Your task to perform on an android device: Add logitech g pro to the cart on amazon Image 0: 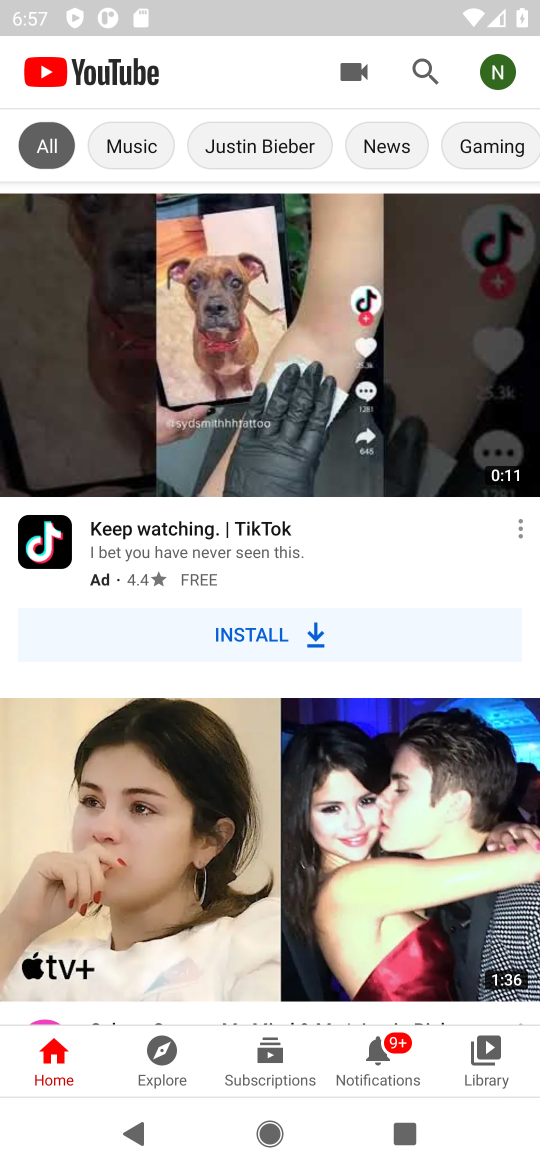
Step 0: press home button
Your task to perform on an android device: Add logitech g pro to the cart on amazon Image 1: 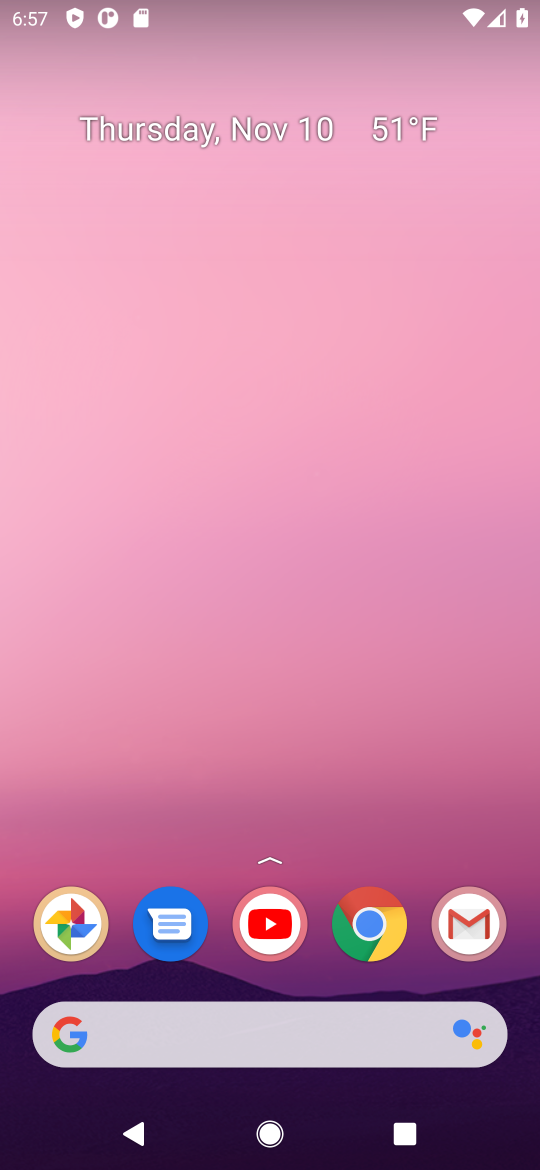
Step 1: click (381, 950)
Your task to perform on an android device: Add logitech g pro to the cart on amazon Image 2: 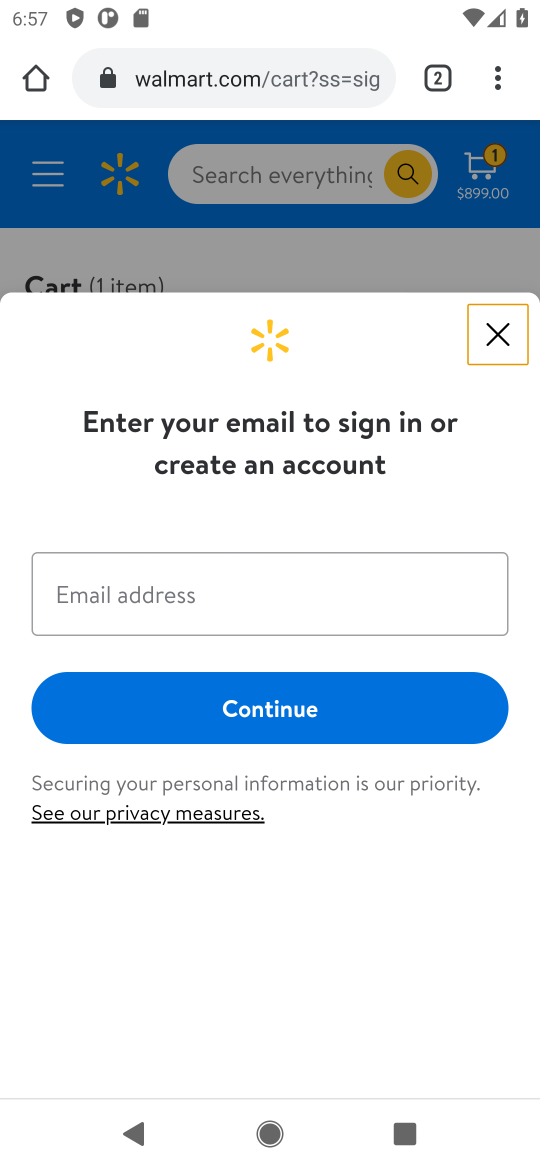
Step 2: click (221, 78)
Your task to perform on an android device: Add logitech g pro to the cart on amazon Image 3: 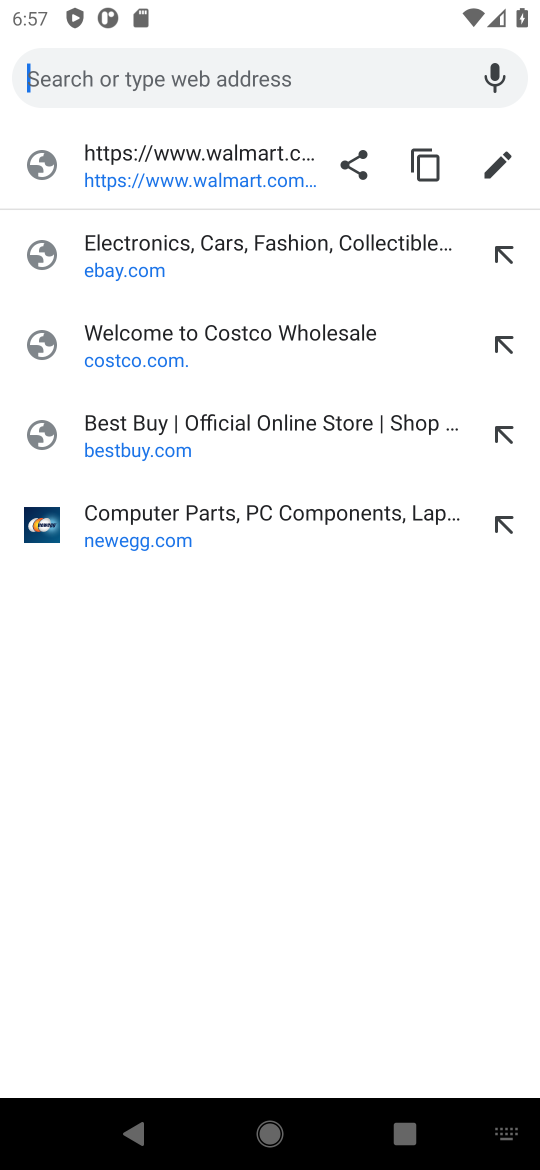
Step 3: type "amazon.com"
Your task to perform on an android device: Add logitech g pro to the cart on amazon Image 4: 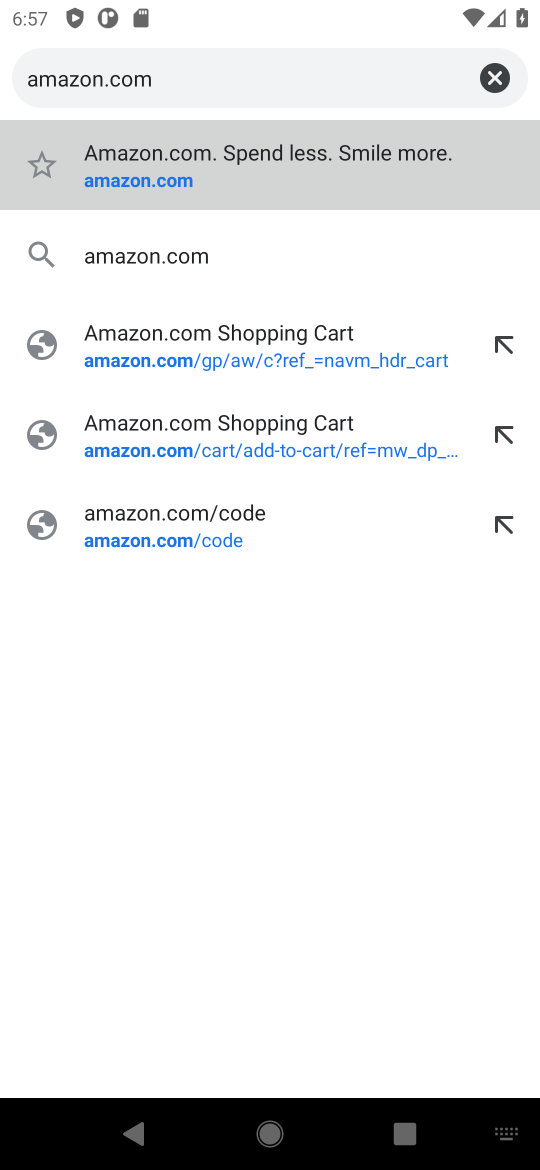
Step 4: click (132, 352)
Your task to perform on an android device: Add logitech g pro to the cart on amazon Image 5: 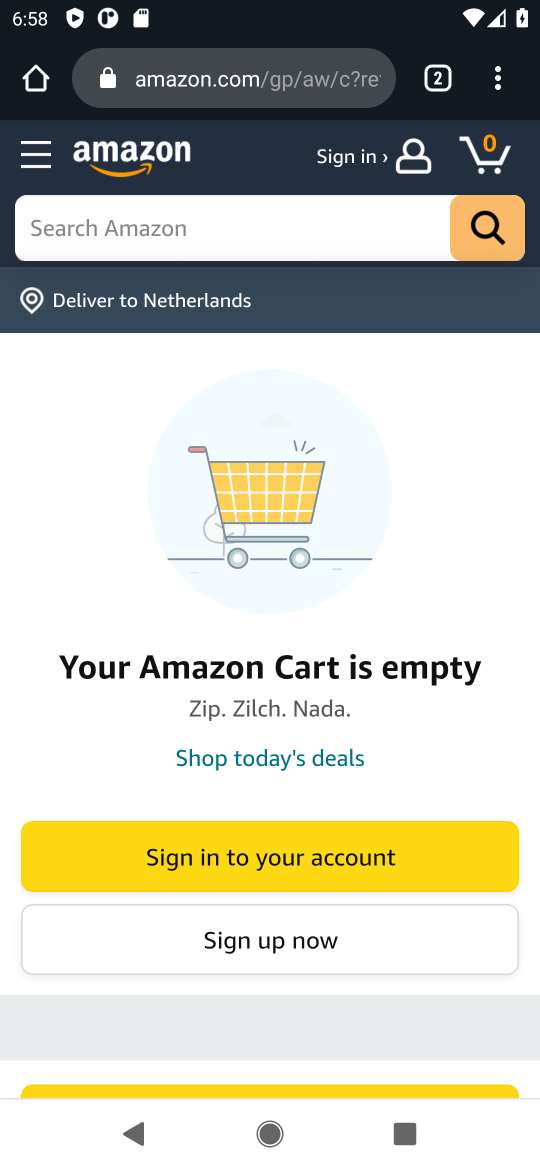
Step 5: click (163, 242)
Your task to perform on an android device: Add logitech g pro to the cart on amazon Image 6: 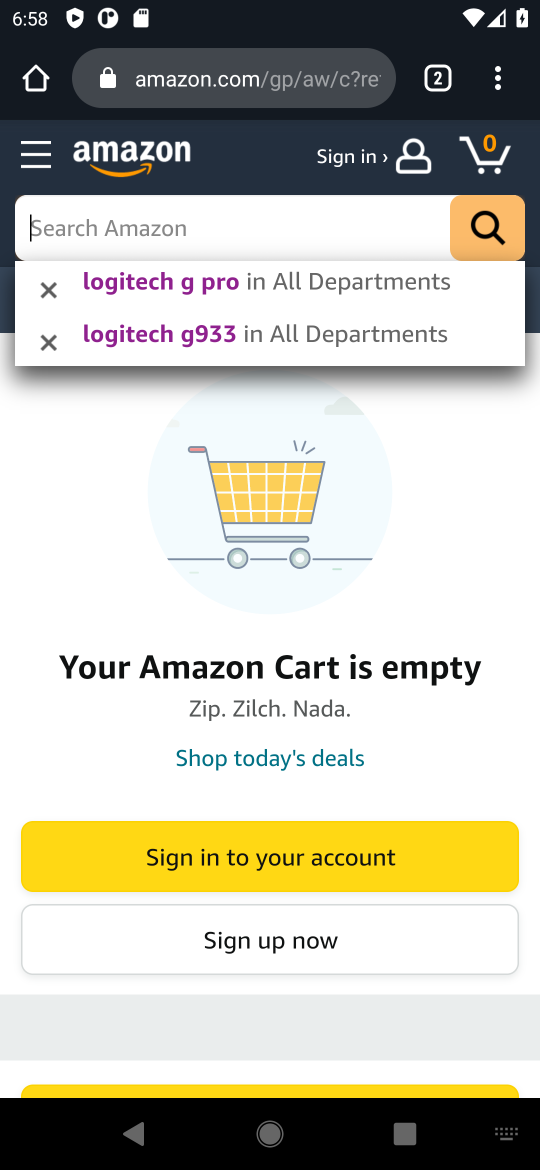
Step 6: type "logitech g pro"
Your task to perform on an android device: Add logitech g pro to the cart on amazon Image 7: 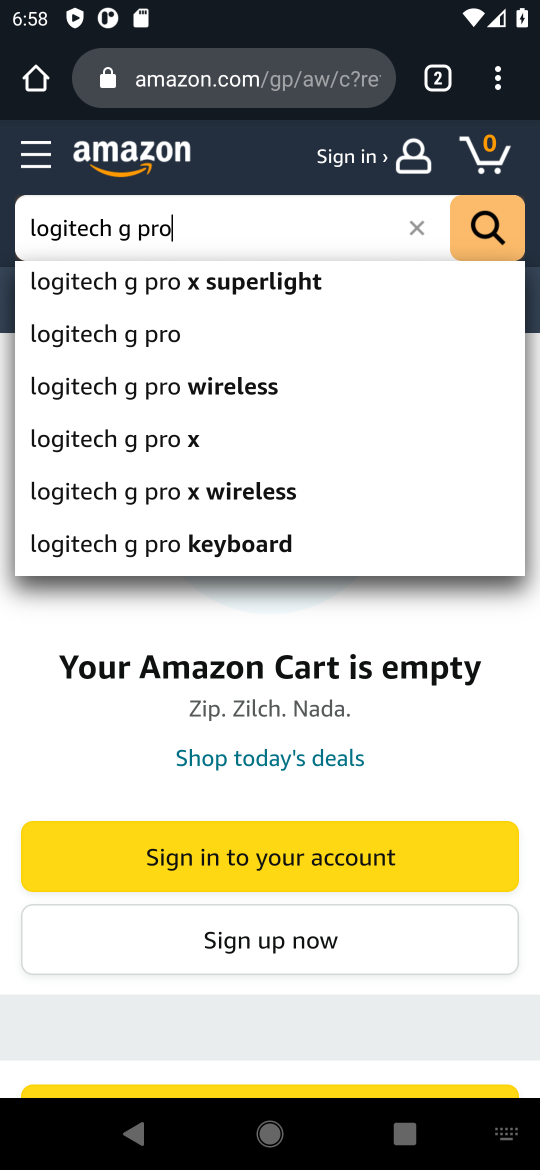
Step 7: click (102, 345)
Your task to perform on an android device: Add logitech g pro to the cart on amazon Image 8: 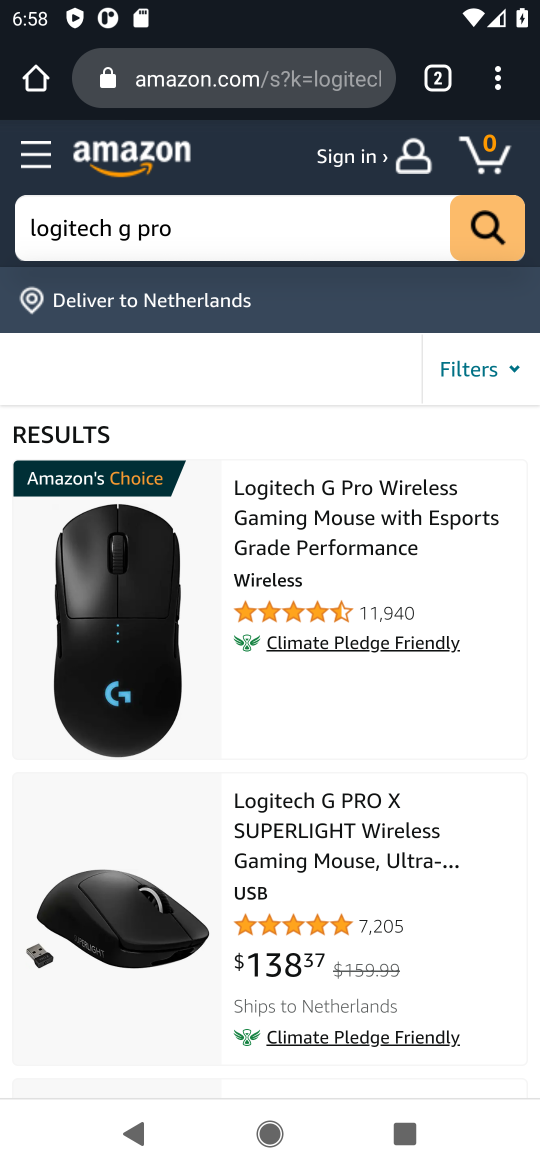
Step 8: click (143, 673)
Your task to perform on an android device: Add logitech g pro to the cart on amazon Image 9: 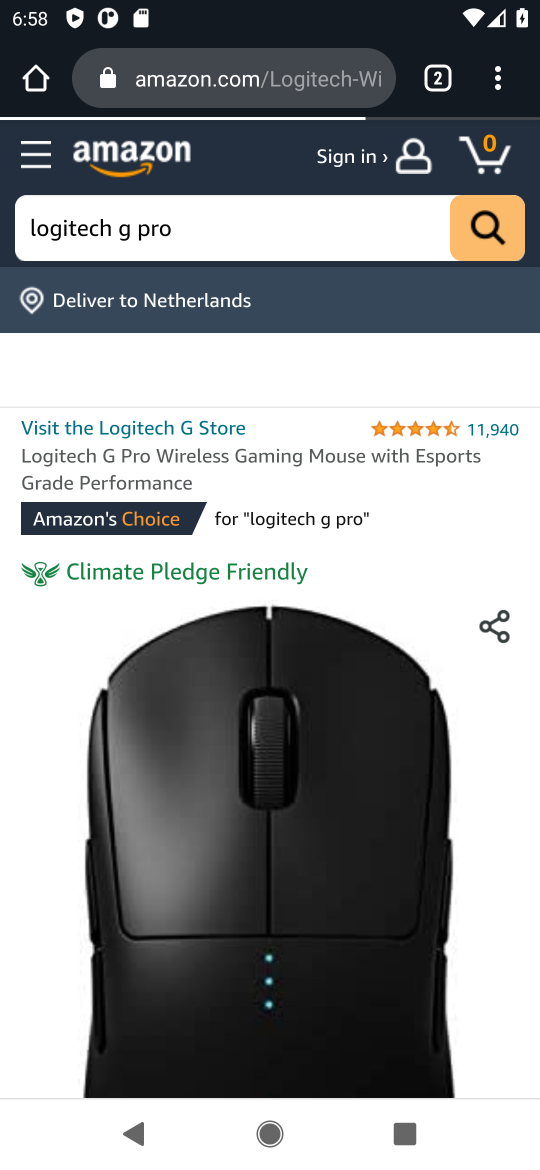
Step 9: drag from (335, 867) to (330, 364)
Your task to perform on an android device: Add logitech g pro to the cart on amazon Image 10: 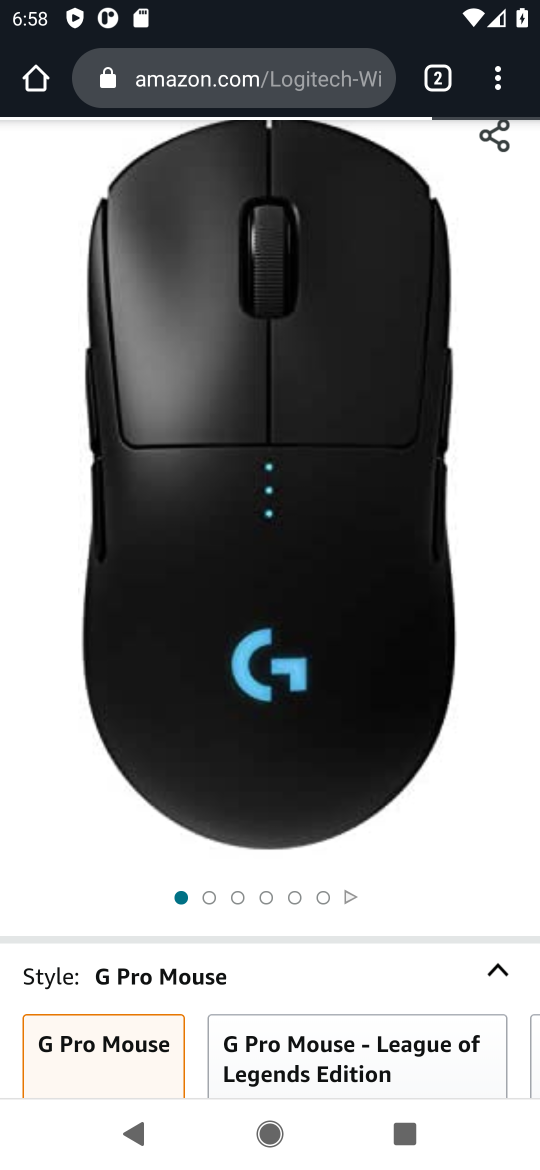
Step 10: drag from (294, 905) to (284, 436)
Your task to perform on an android device: Add logitech g pro to the cart on amazon Image 11: 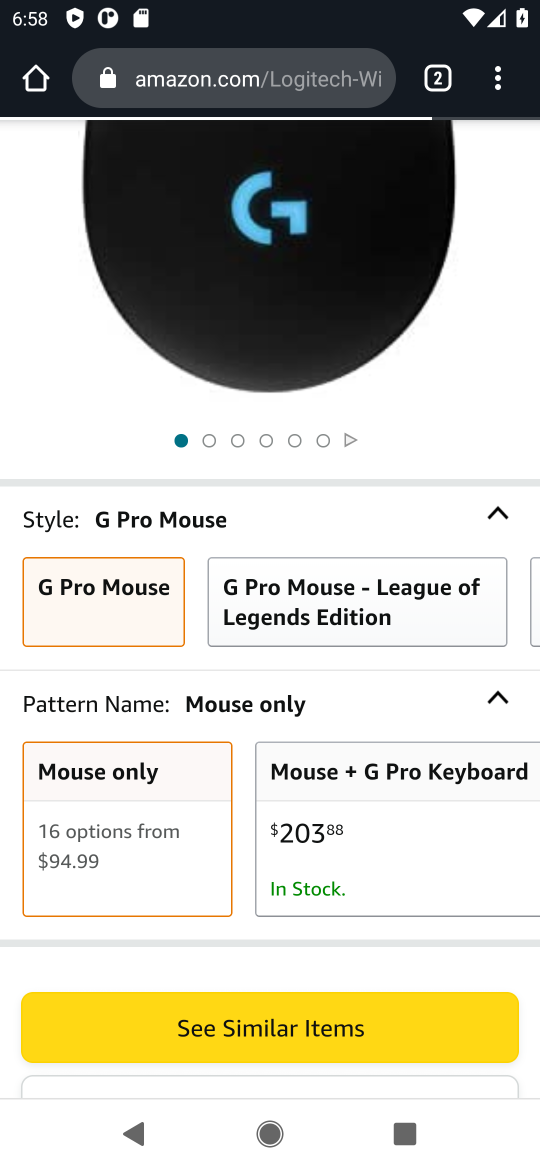
Step 11: press back button
Your task to perform on an android device: Add logitech g pro to the cart on amazon Image 12: 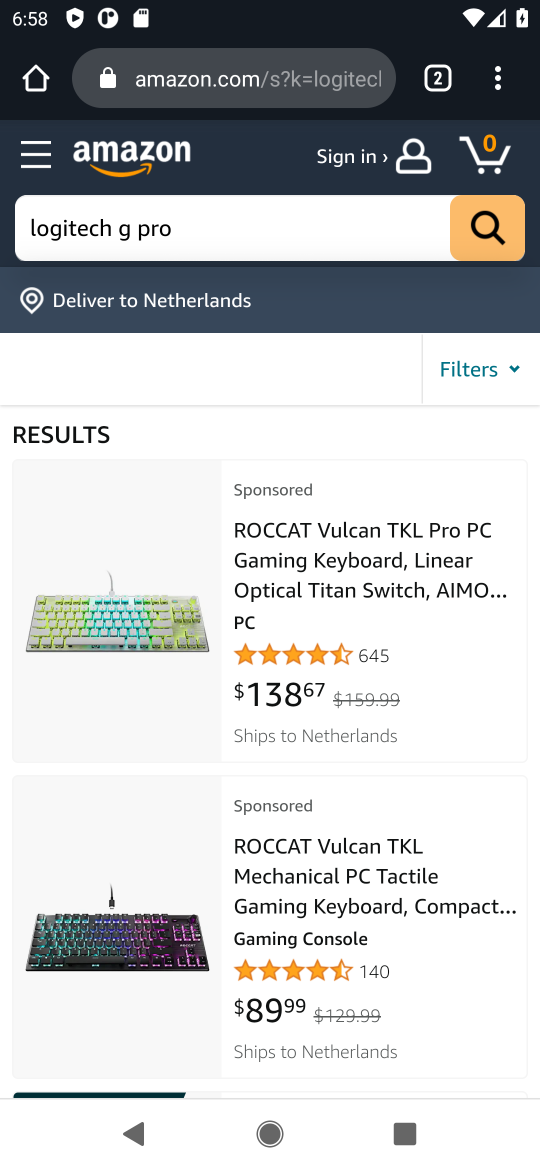
Step 12: drag from (217, 842) to (230, 530)
Your task to perform on an android device: Add logitech g pro to the cart on amazon Image 13: 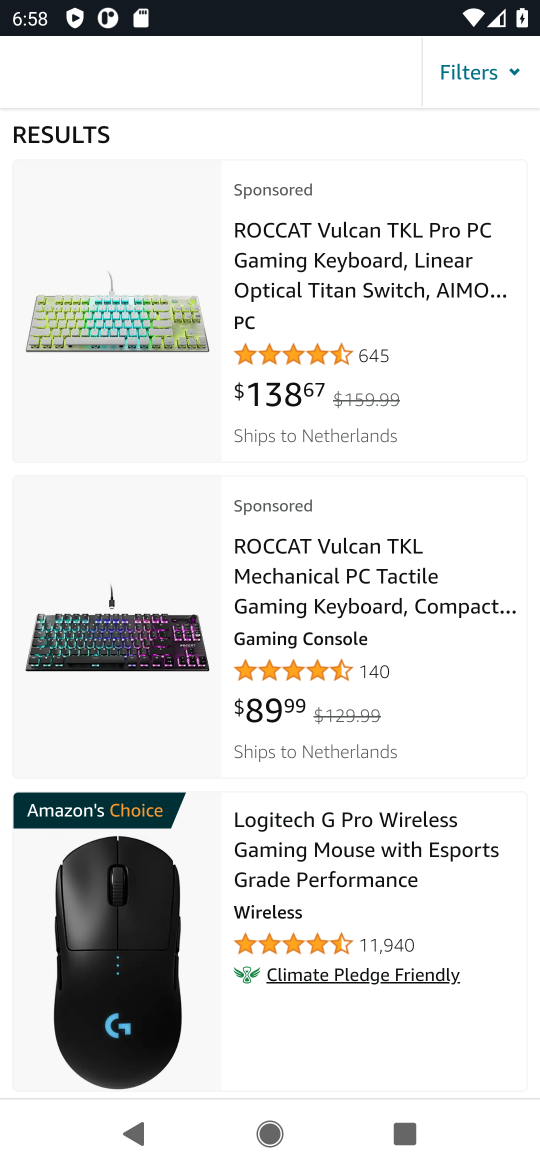
Step 13: drag from (178, 934) to (212, 466)
Your task to perform on an android device: Add logitech g pro to the cart on amazon Image 14: 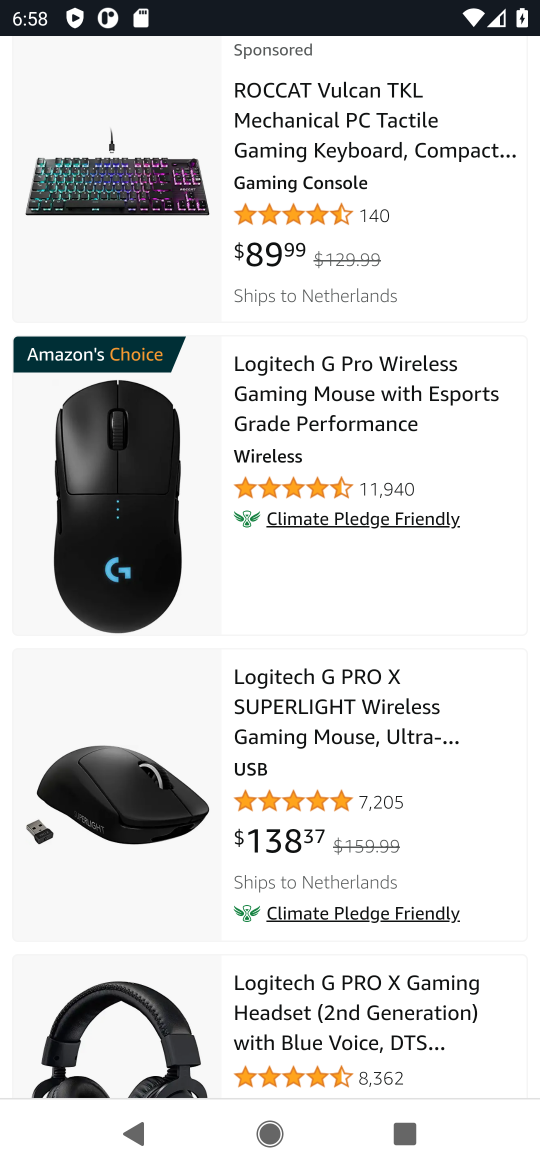
Step 14: click (111, 761)
Your task to perform on an android device: Add logitech g pro to the cart on amazon Image 15: 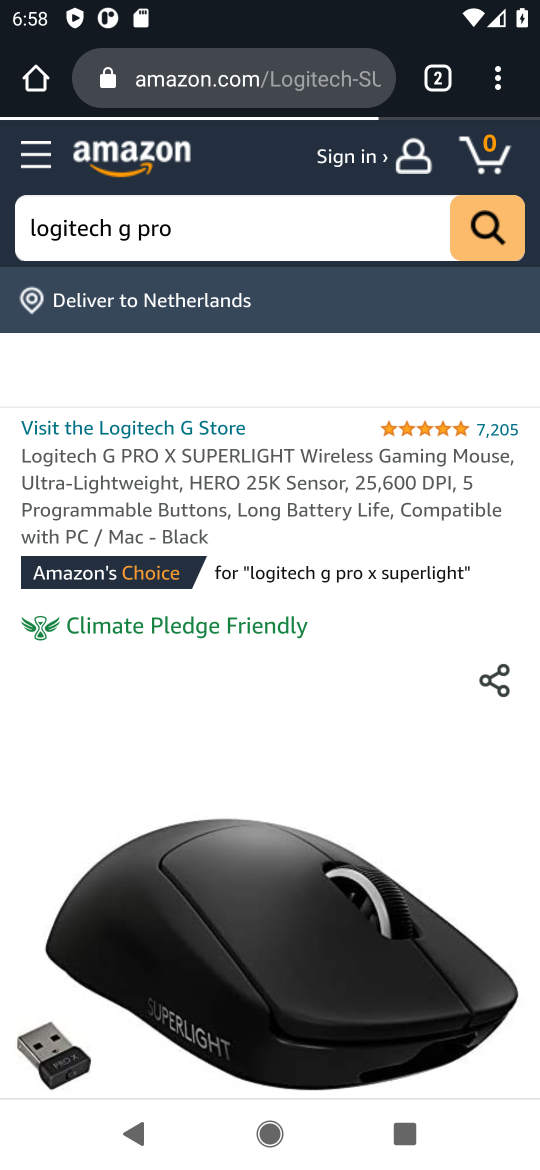
Step 15: drag from (225, 840) to (223, 238)
Your task to perform on an android device: Add logitech g pro to the cart on amazon Image 16: 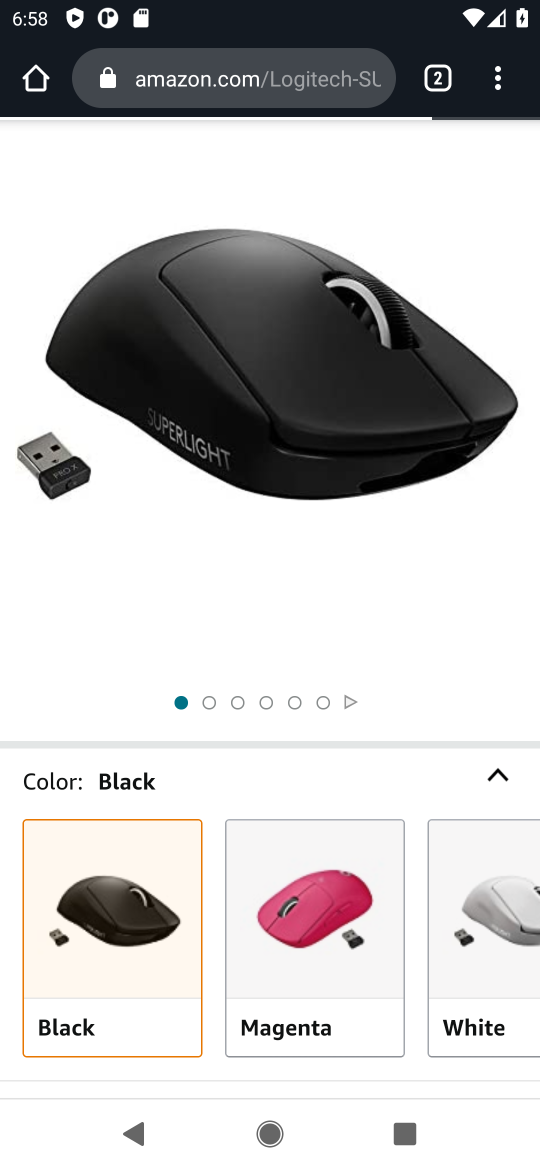
Step 16: drag from (278, 869) to (264, 339)
Your task to perform on an android device: Add logitech g pro to the cart on amazon Image 17: 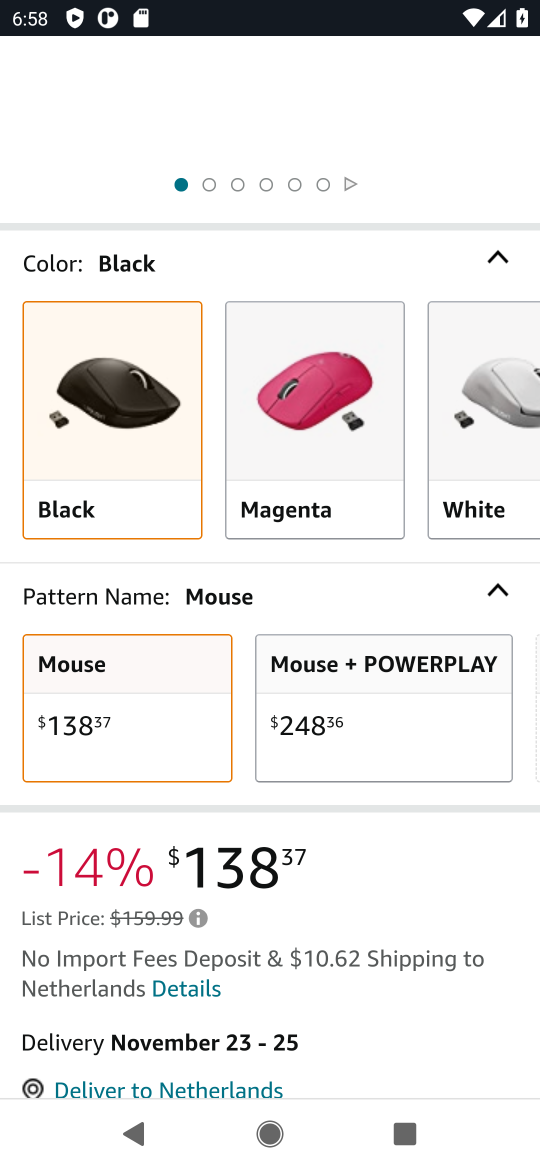
Step 17: drag from (266, 905) to (255, 501)
Your task to perform on an android device: Add logitech g pro to the cart on amazon Image 18: 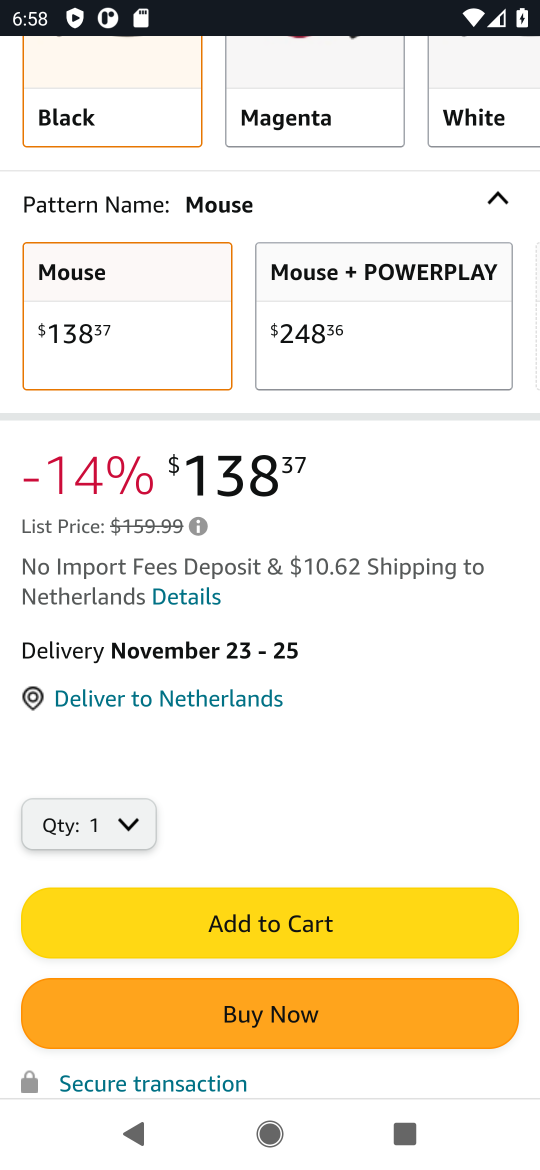
Step 18: click (277, 918)
Your task to perform on an android device: Add logitech g pro to the cart on amazon Image 19: 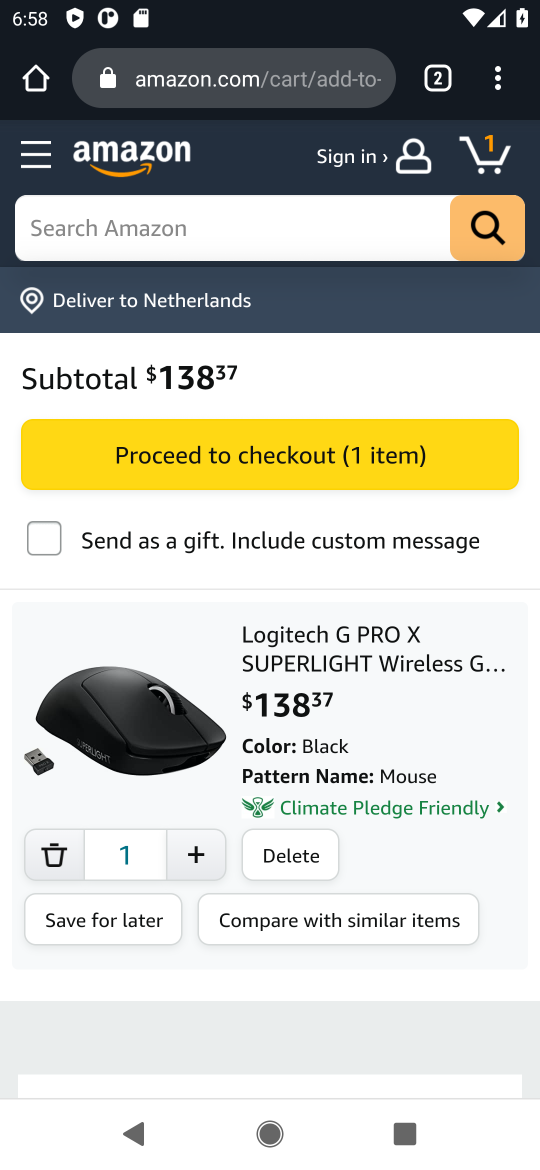
Step 19: task complete